Your task to perform on an android device: delete browsing data in the chrome app Image 0: 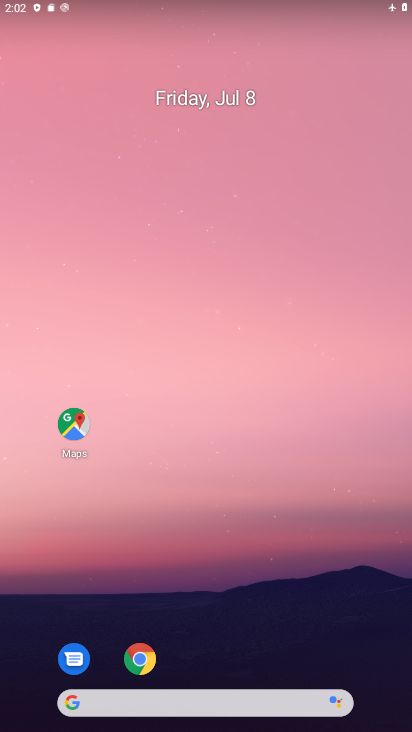
Step 0: click (138, 658)
Your task to perform on an android device: delete browsing data in the chrome app Image 1: 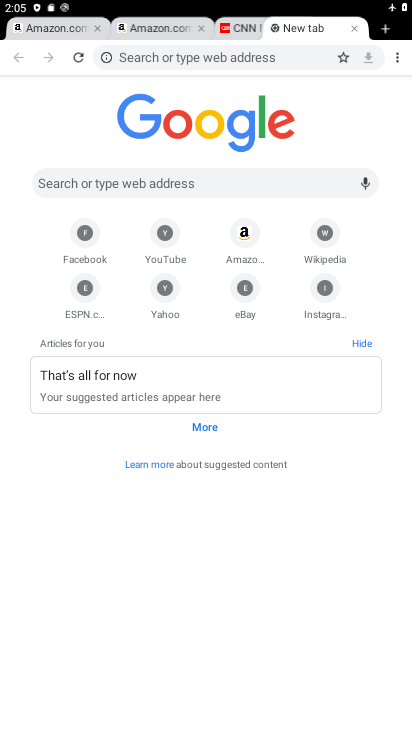
Step 1: click (393, 61)
Your task to perform on an android device: delete browsing data in the chrome app Image 2: 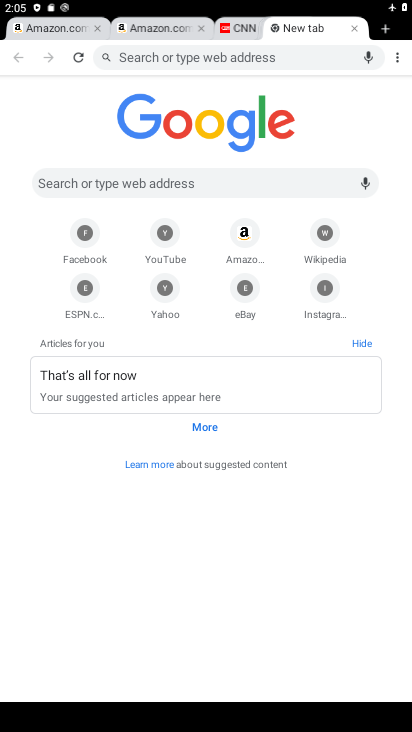
Step 2: click (394, 63)
Your task to perform on an android device: delete browsing data in the chrome app Image 3: 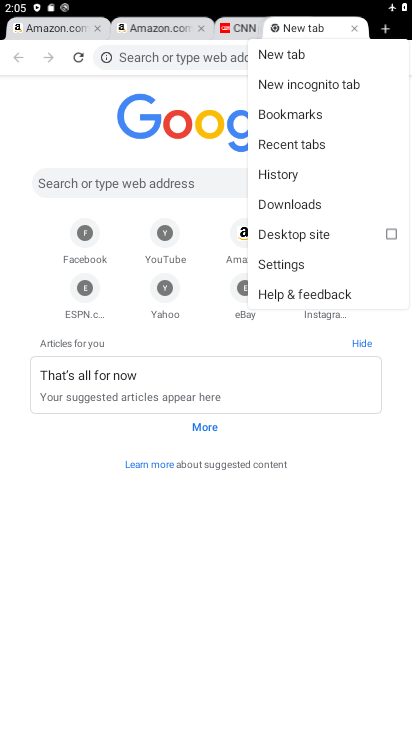
Step 3: click (303, 172)
Your task to perform on an android device: delete browsing data in the chrome app Image 4: 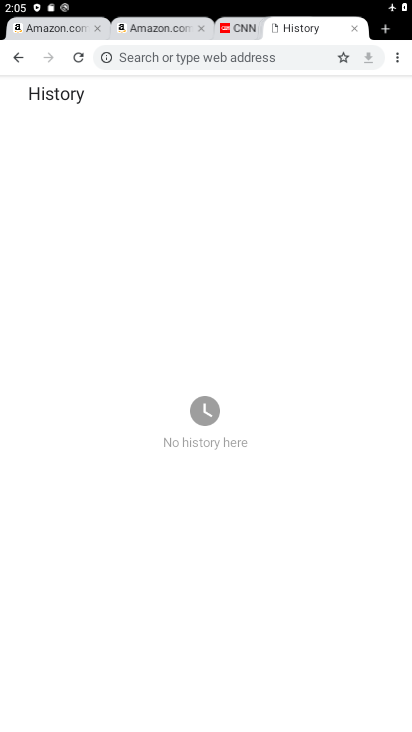
Step 4: task complete